Your task to perform on an android device: change the clock display to digital Image 0: 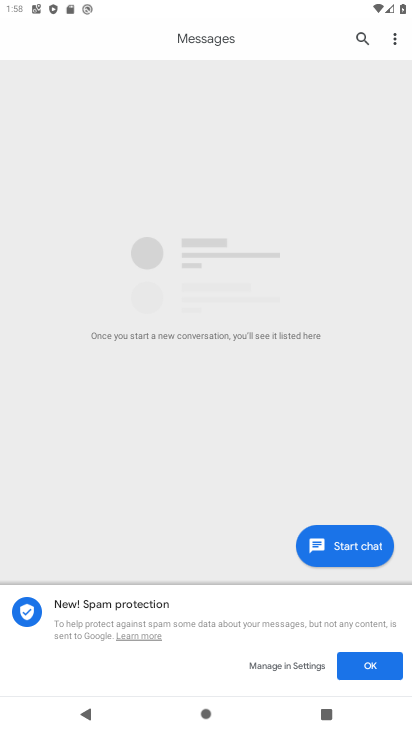
Step 0: press home button
Your task to perform on an android device: change the clock display to digital Image 1: 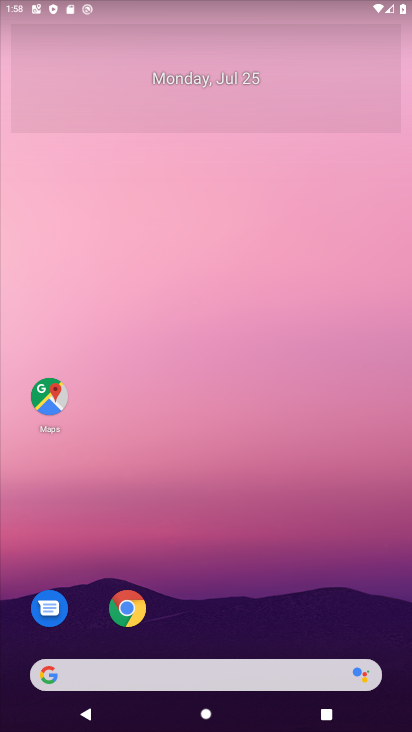
Step 1: drag from (238, 539) to (237, 315)
Your task to perform on an android device: change the clock display to digital Image 2: 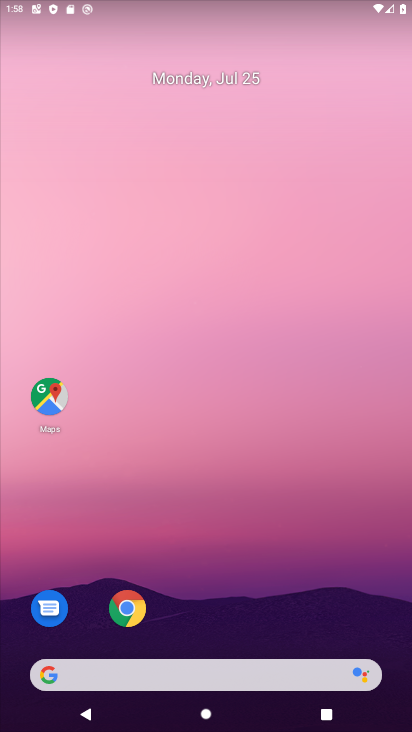
Step 2: drag from (248, 543) to (261, 167)
Your task to perform on an android device: change the clock display to digital Image 3: 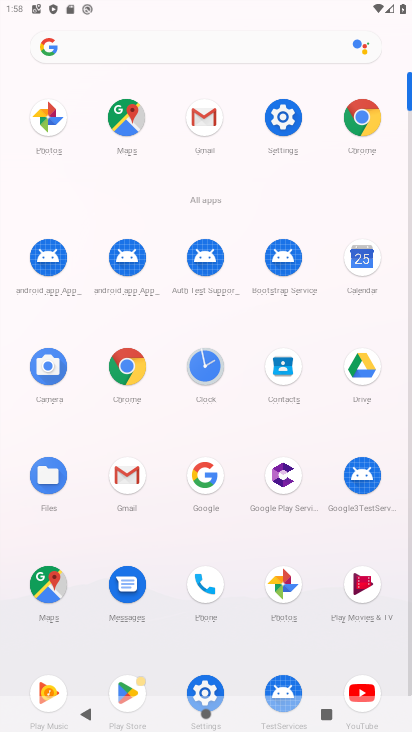
Step 3: click (199, 376)
Your task to perform on an android device: change the clock display to digital Image 4: 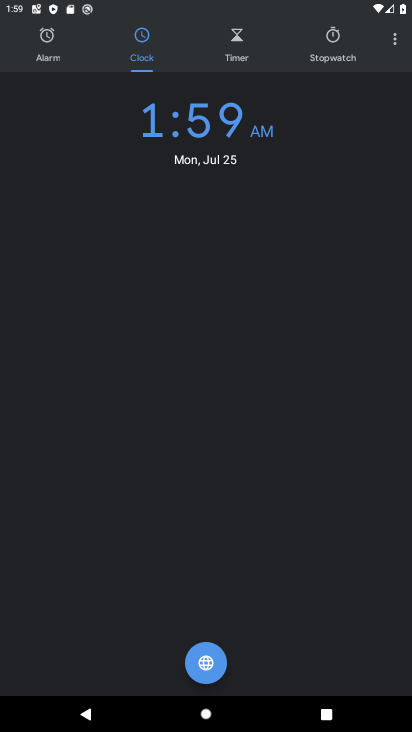
Step 4: click (395, 40)
Your task to perform on an android device: change the clock display to digital Image 5: 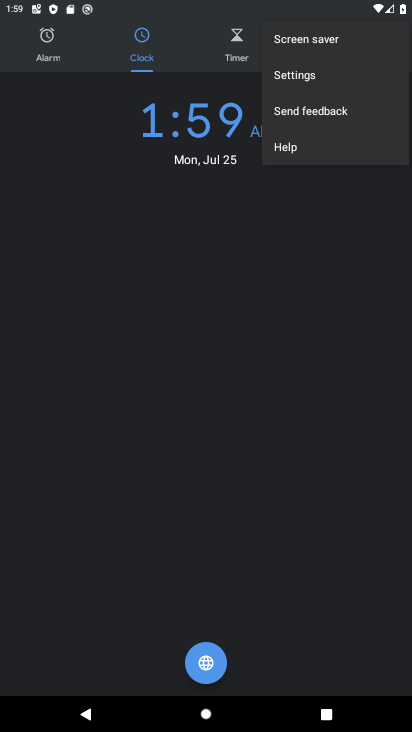
Step 5: click (299, 82)
Your task to perform on an android device: change the clock display to digital Image 6: 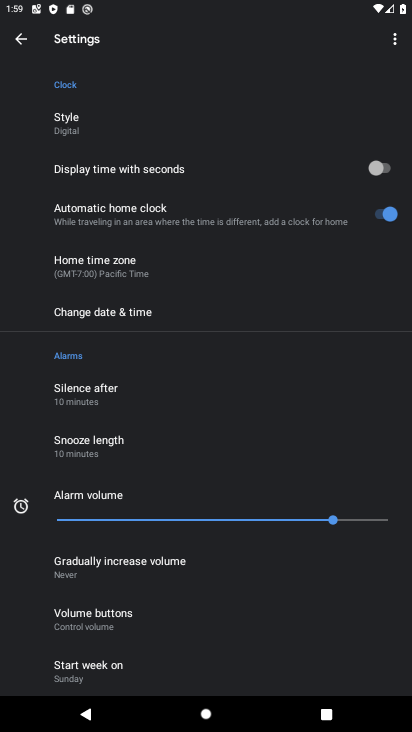
Step 6: task complete